Your task to perform on an android device: Open the Play Movies app and select the watchlist tab. Image 0: 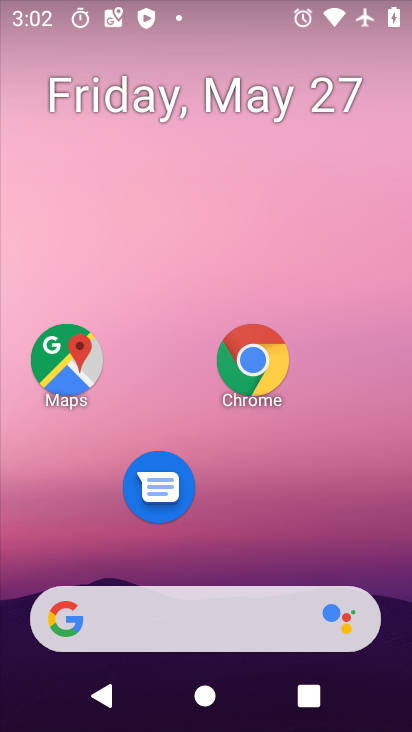
Step 0: drag from (271, 508) to (309, 34)
Your task to perform on an android device: Open the Play Movies app and select the watchlist tab. Image 1: 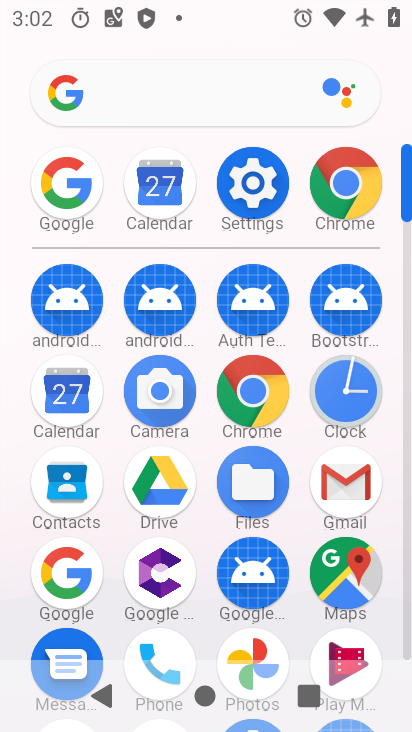
Step 1: click (338, 639)
Your task to perform on an android device: Open the Play Movies app and select the watchlist tab. Image 2: 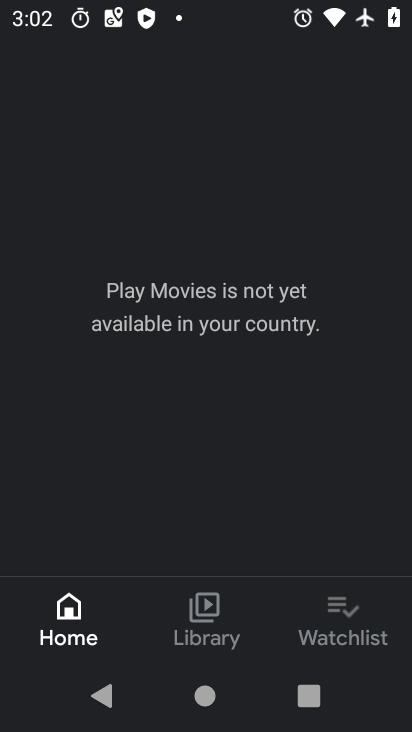
Step 2: click (340, 635)
Your task to perform on an android device: Open the Play Movies app and select the watchlist tab. Image 3: 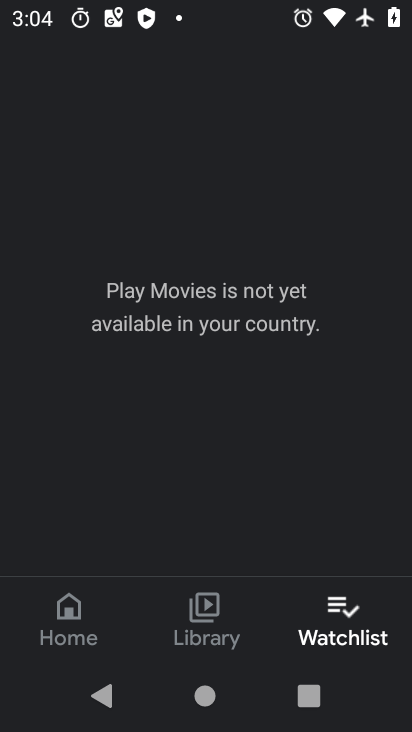
Step 3: task complete